Your task to perform on an android device: change text size in settings app Image 0: 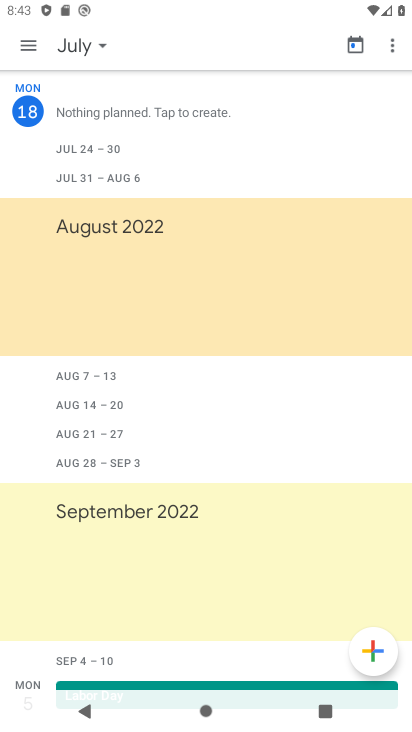
Step 0: press home button
Your task to perform on an android device: change text size in settings app Image 1: 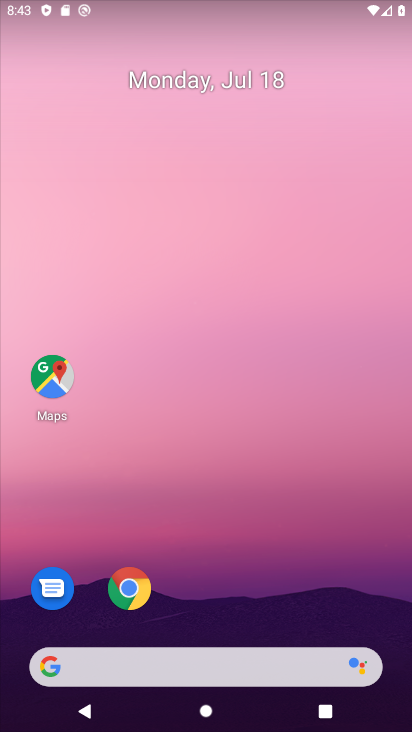
Step 1: drag from (294, 602) to (362, 53)
Your task to perform on an android device: change text size in settings app Image 2: 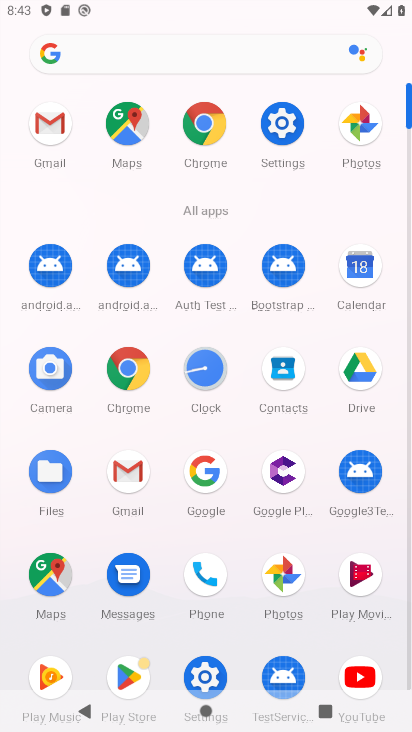
Step 2: click (199, 688)
Your task to perform on an android device: change text size in settings app Image 3: 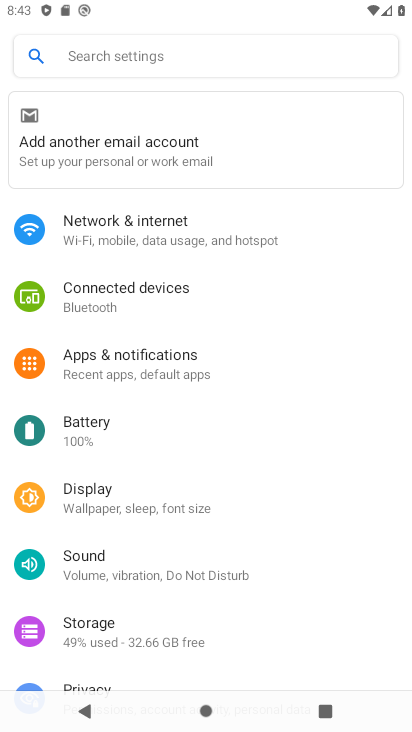
Step 3: click (82, 497)
Your task to perform on an android device: change text size in settings app Image 4: 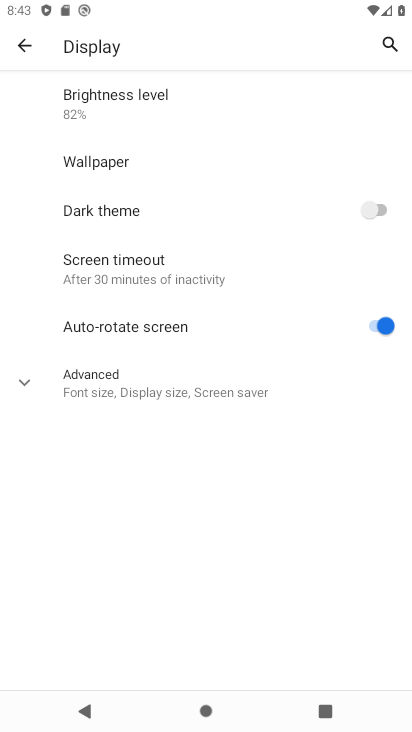
Step 4: click (186, 387)
Your task to perform on an android device: change text size in settings app Image 5: 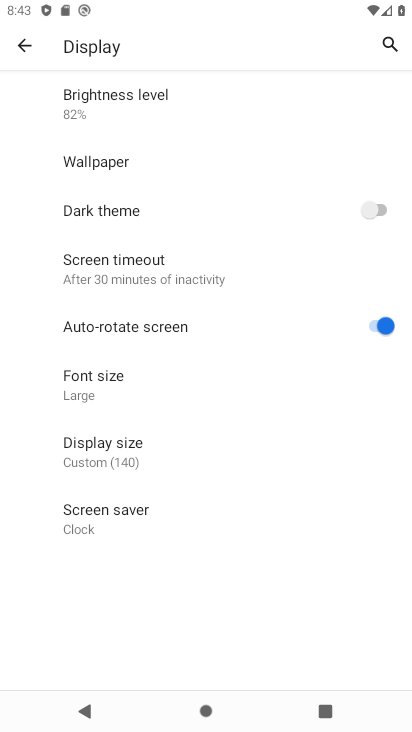
Step 5: click (186, 387)
Your task to perform on an android device: change text size in settings app Image 6: 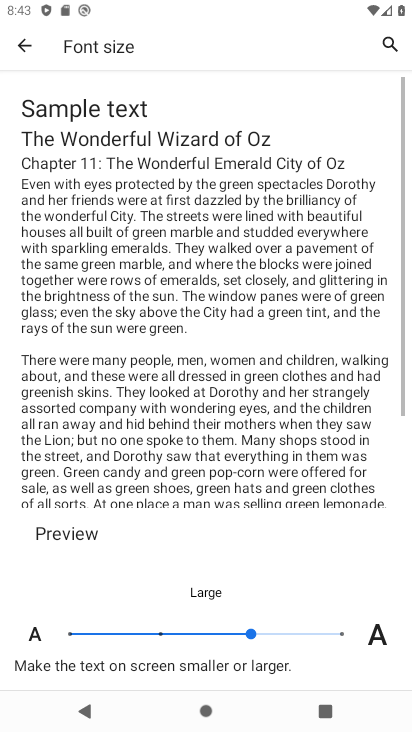
Step 6: click (372, 633)
Your task to perform on an android device: change text size in settings app Image 7: 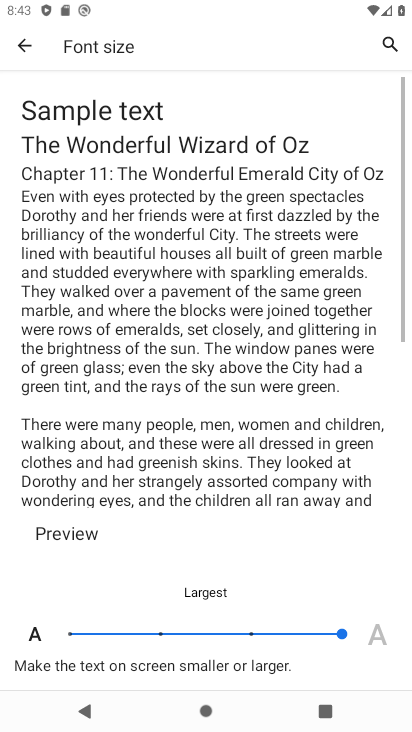
Step 7: task complete